Your task to perform on an android device: open chrome privacy settings Image 0: 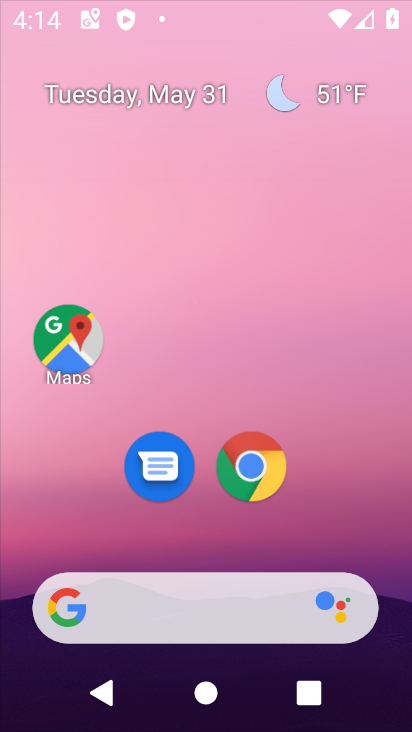
Step 0: press home button
Your task to perform on an android device: open chrome privacy settings Image 1: 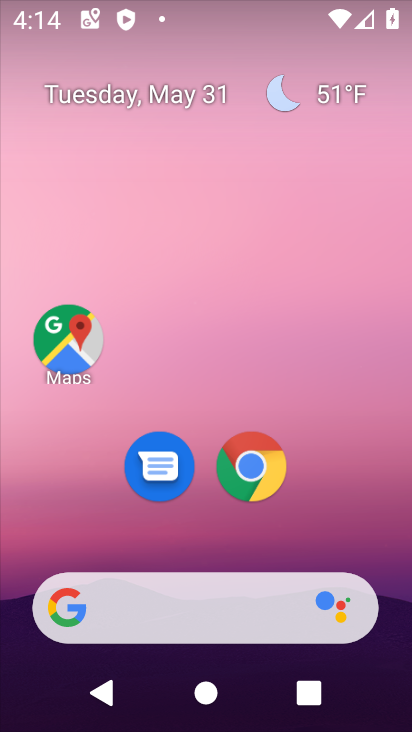
Step 1: drag from (208, 551) to (229, 0)
Your task to perform on an android device: open chrome privacy settings Image 2: 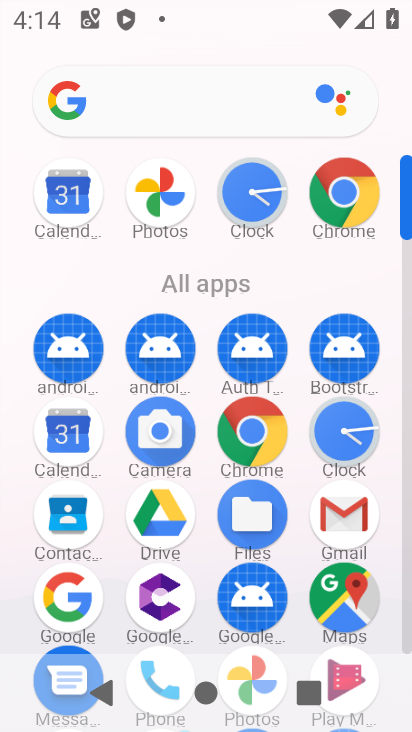
Step 2: click (352, 190)
Your task to perform on an android device: open chrome privacy settings Image 3: 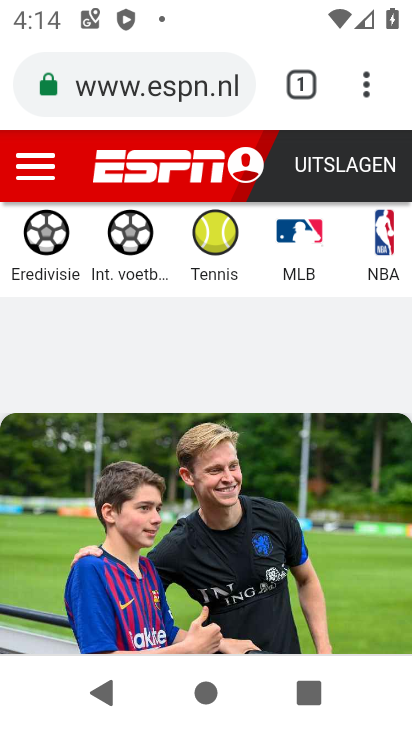
Step 3: click (379, 80)
Your task to perform on an android device: open chrome privacy settings Image 4: 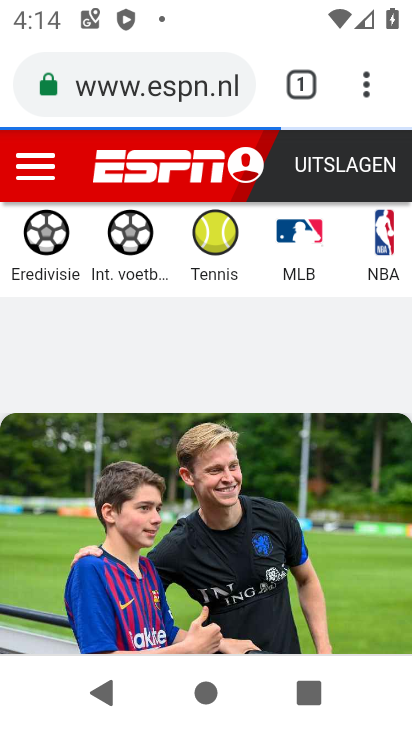
Step 4: click (366, 86)
Your task to perform on an android device: open chrome privacy settings Image 5: 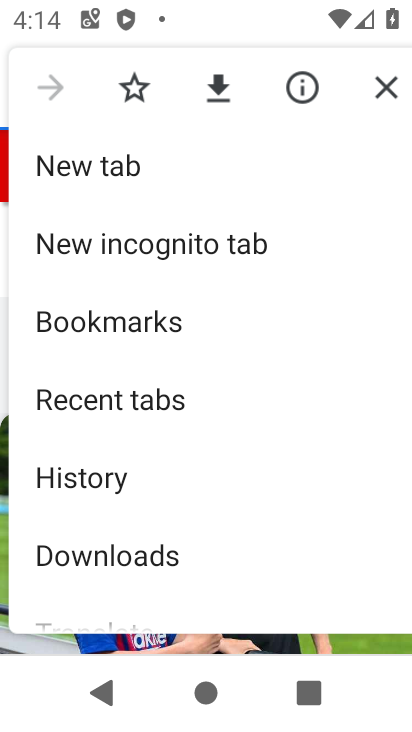
Step 5: drag from (205, 564) to (248, 39)
Your task to perform on an android device: open chrome privacy settings Image 6: 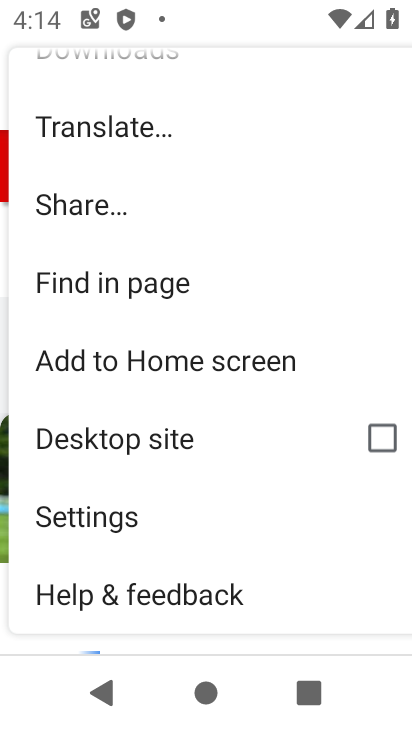
Step 6: click (139, 514)
Your task to perform on an android device: open chrome privacy settings Image 7: 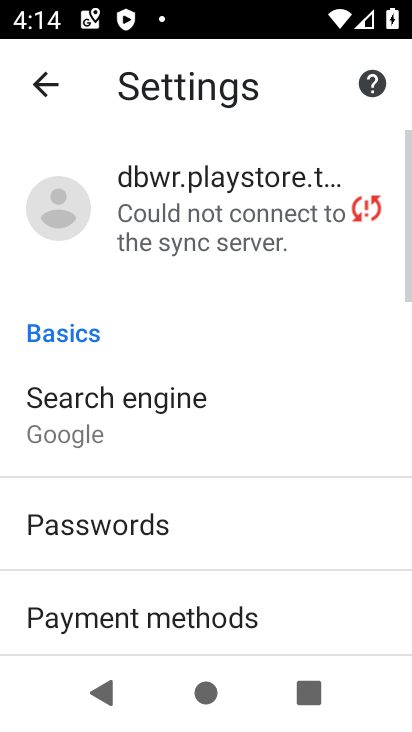
Step 7: drag from (207, 574) to (248, 106)
Your task to perform on an android device: open chrome privacy settings Image 8: 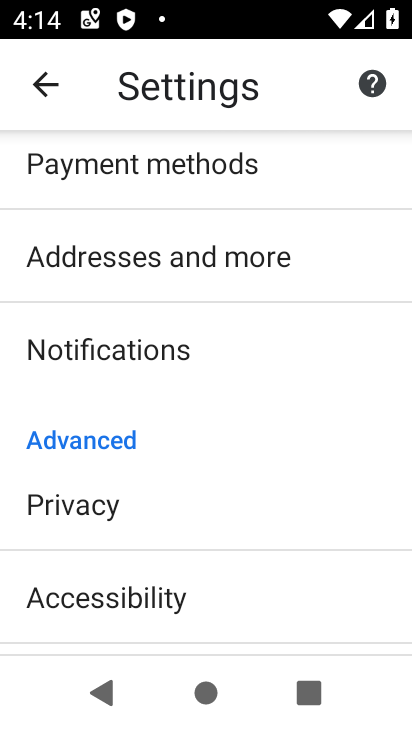
Step 8: drag from (218, 591) to (247, 130)
Your task to perform on an android device: open chrome privacy settings Image 9: 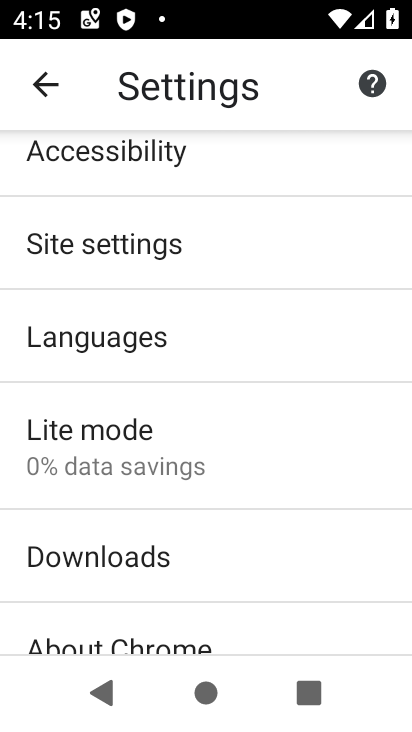
Step 9: drag from (195, 609) to (219, 143)
Your task to perform on an android device: open chrome privacy settings Image 10: 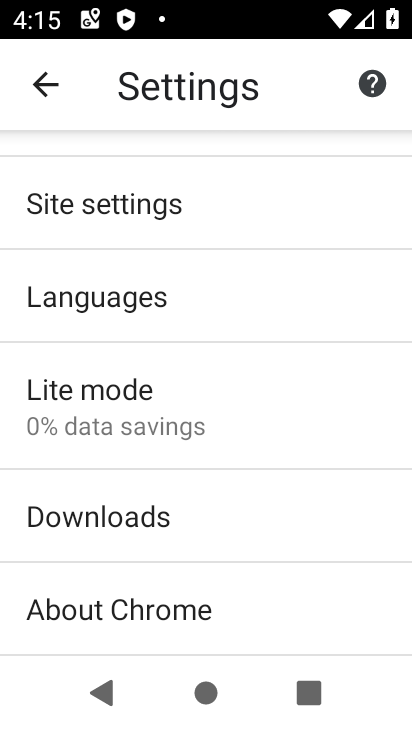
Step 10: drag from (184, 222) to (246, 627)
Your task to perform on an android device: open chrome privacy settings Image 11: 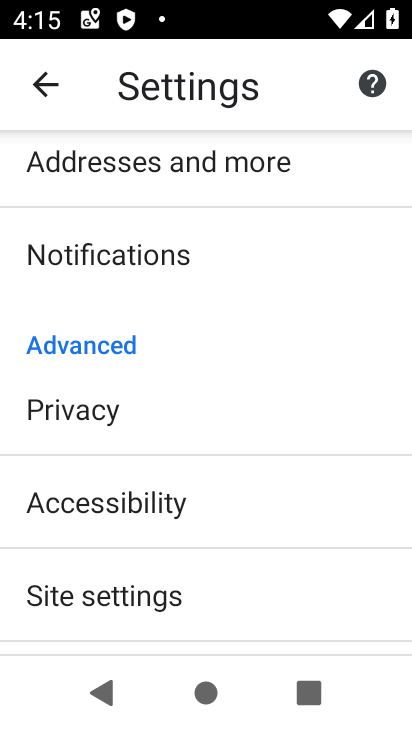
Step 11: click (155, 425)
Your task to perform on an android device: open chrome privacy settings Image 12: 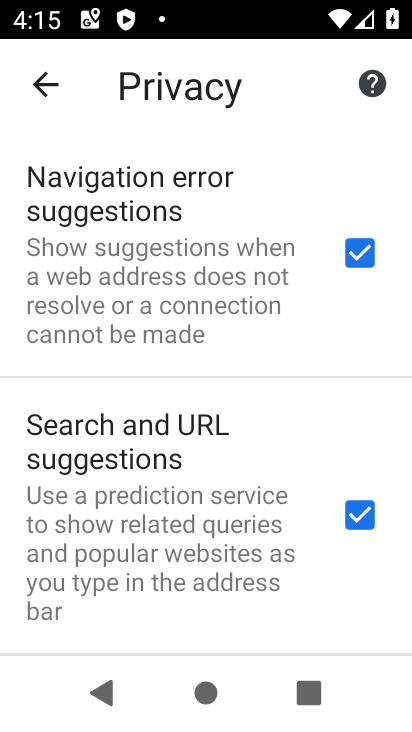
Step 12: task complete